Your task to perform on an android device: Open internet settings Image 0: 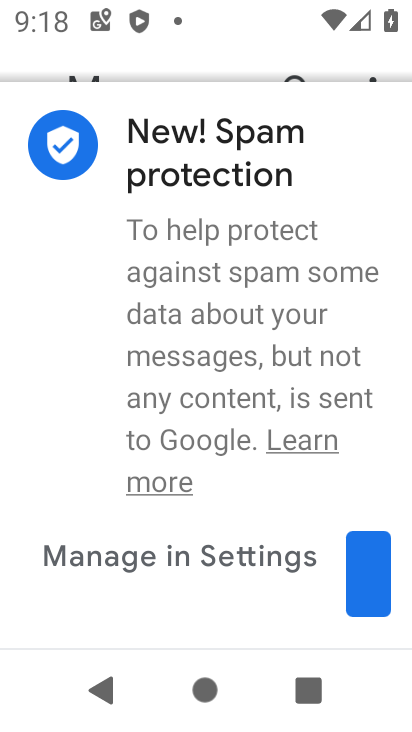
Step 0: press home button
Your task to perform on an android device: Open internet settings Image 1: 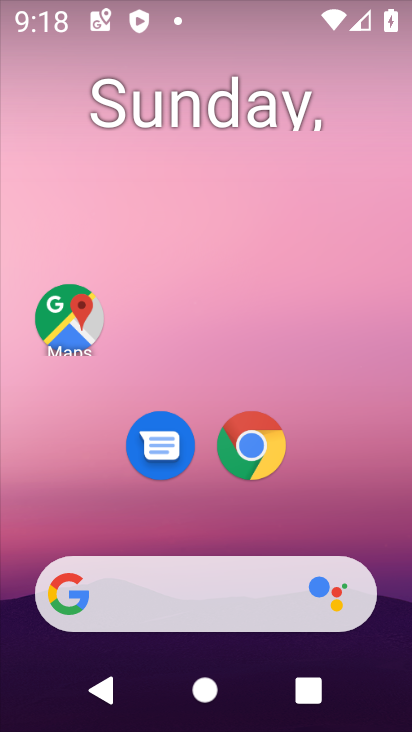
Step 1: drag from (377, 548) to (312, 152)
Your task to perform on an android device: Open internet settings Image 2: 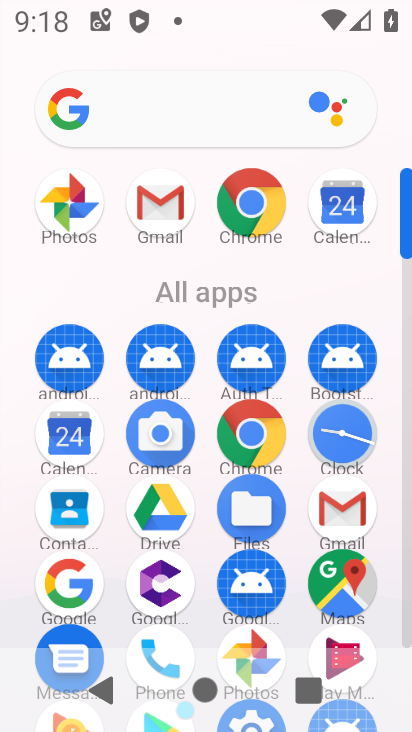
Step 2: click (406, 629)
Your task to perform on an android device: Open internet settings Image 3: 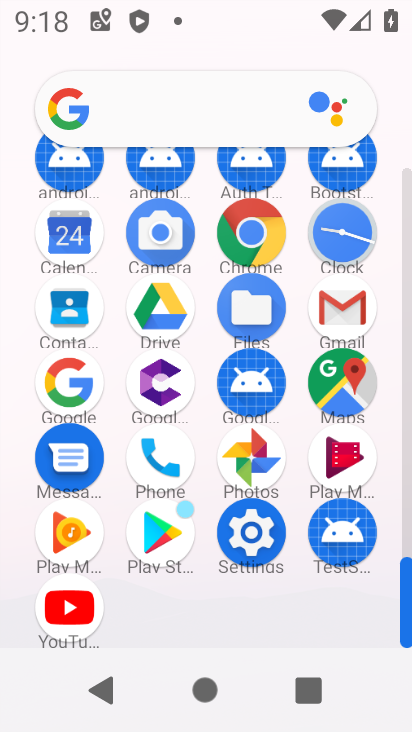
Step 3: click (249, 531)
Your task to perform on an android device: Open internet settings Image 4: 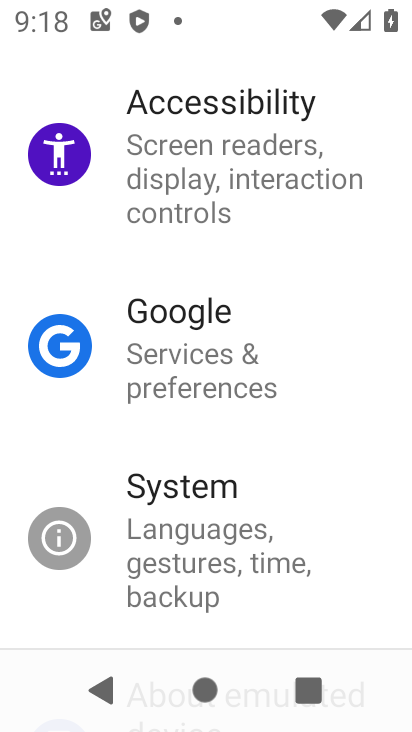
Step 4: drag from (315, 296) to (312, 532)
Your task to perform on an android device: Open internet settings Image 5: 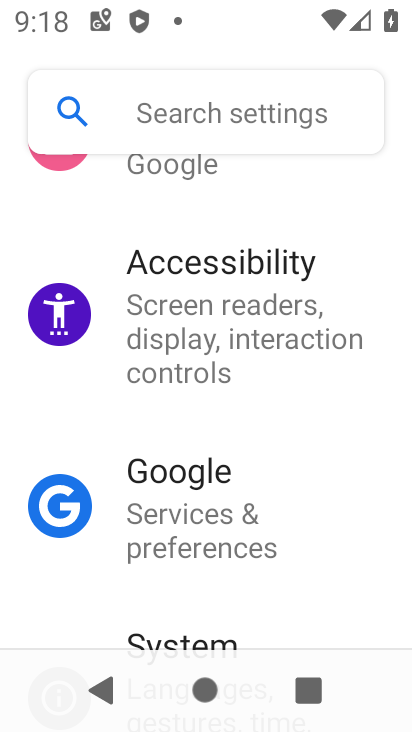
Step 5: drag from (368, 305) to (339, 515)
Your task to perform on an android device: Open internet settings Image 6: 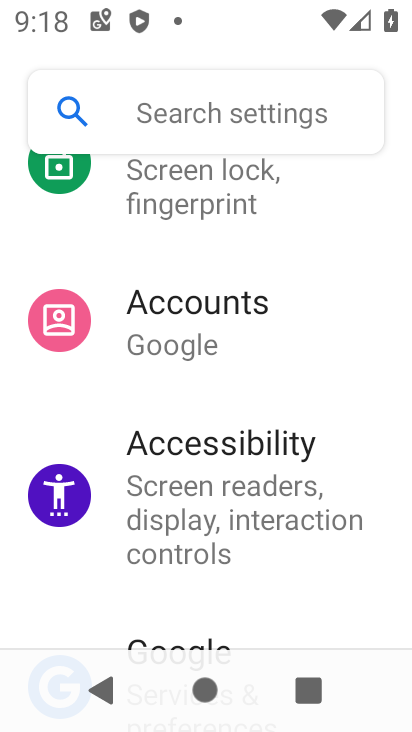
Step 6: drag from (330, 275) to (347, 506)
Your task to perform on an android device: Open internet settings Image 7: 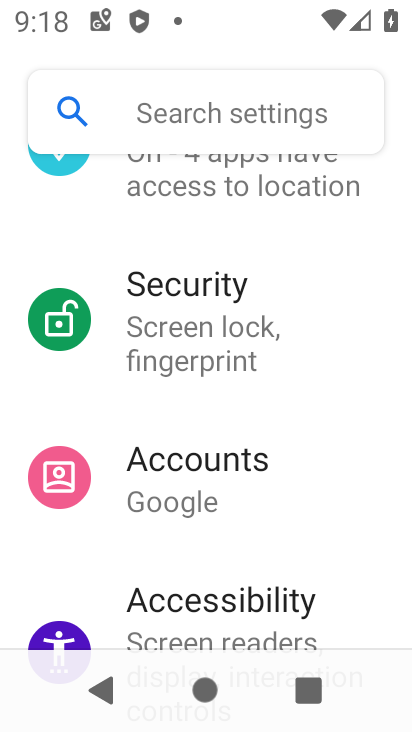
Step 7: drag from (364, 321) to (342, 576)
Your task to perform on an android device: Open internet settings Image 8: 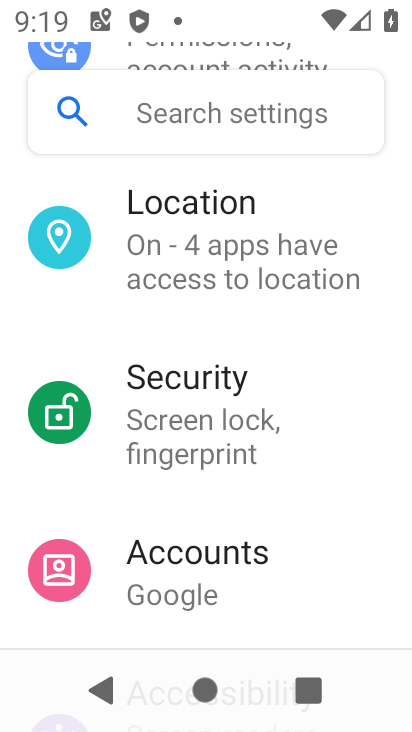
Step 8: drag from (359, 287) to (319, 553)
Your task to perform on an android device: Open internet settings Image 9: 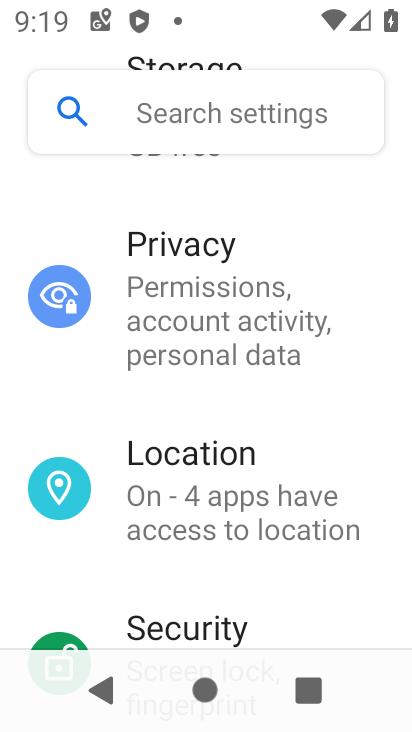
Step 9: drag from (334, 326) to (323, 562)
Your task to perform on an android device: Open internet settings Image 10: 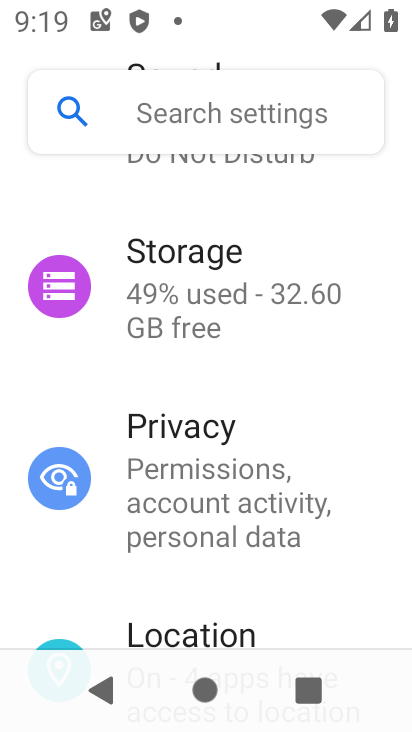
Step 10: drag from (374, 297) to (333, 582)
Your task to perform on an android device: Open internet settings Image 11: 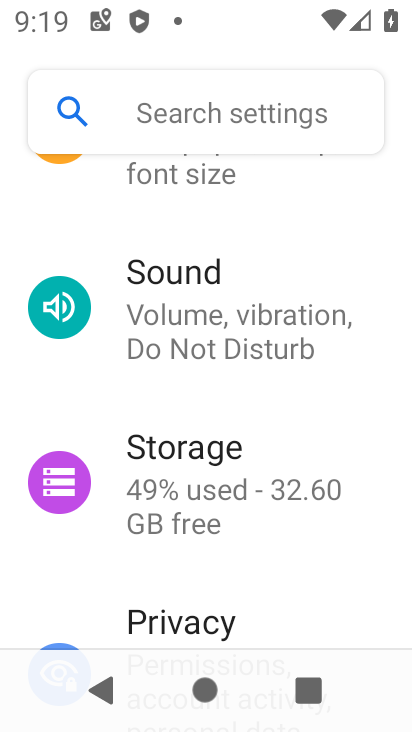
Step 11: drag from (357, 299) to (341, 550)
Your task to perform on an android device: Open internet settings Image 12: 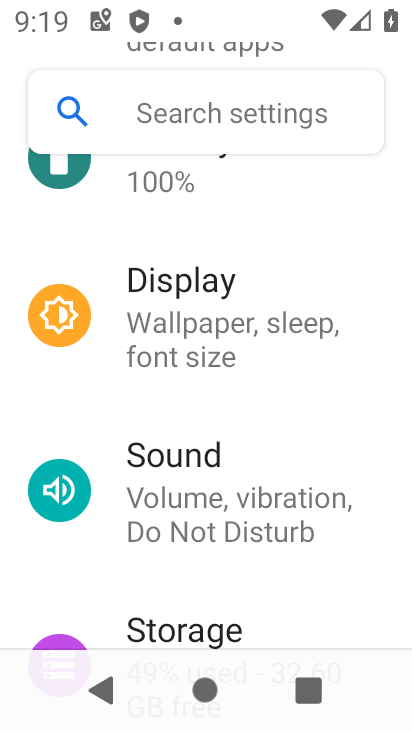
Step 12: drag from (348, 351) to (323, 574)
Your task to perform on an android device: Open internet settings Image 13: 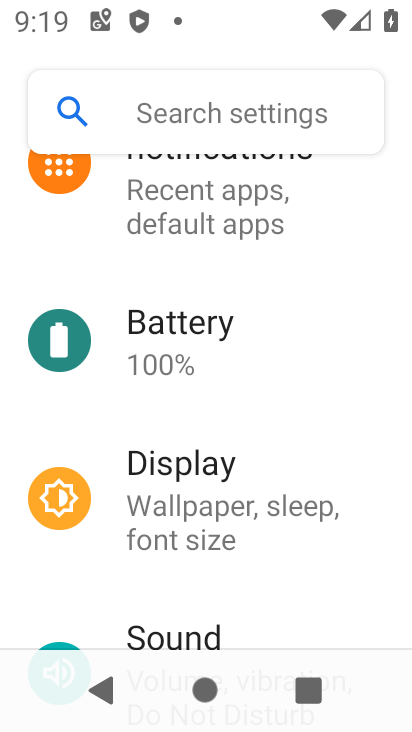
Step 13: drag from (337, 382) to (332, 651)
Your task to perform on an android device: Open internet settings Image 14: 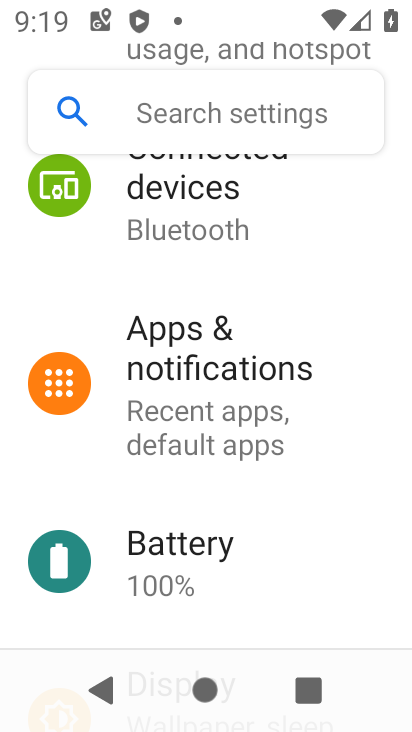
Step 14: drag from (360, 246) to (339, 518)
Your task to perform on an android device: Open internet settings Image 15: 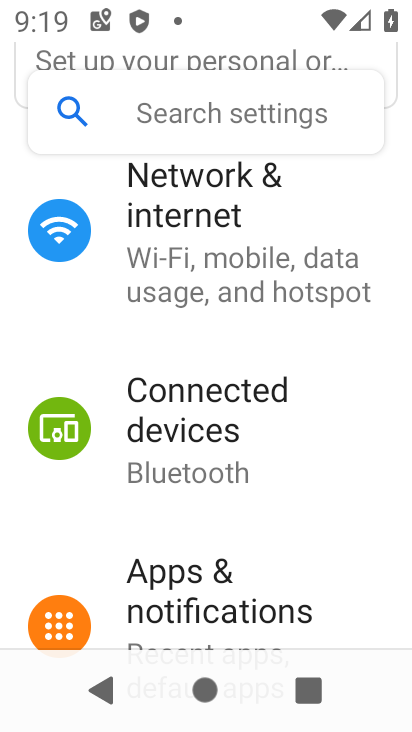
Step 15: click (181, 245)
Your task to perform on an android device: Open internet settings Image 16: 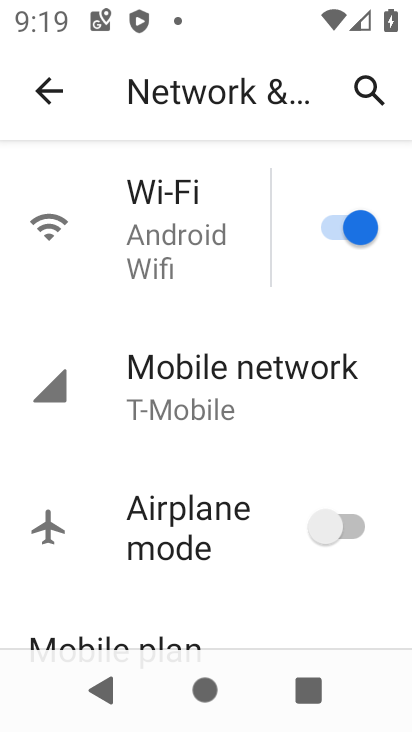
Step 16: click (127, 215)
Your task to perform on an android device: Open internet settings Image 17: 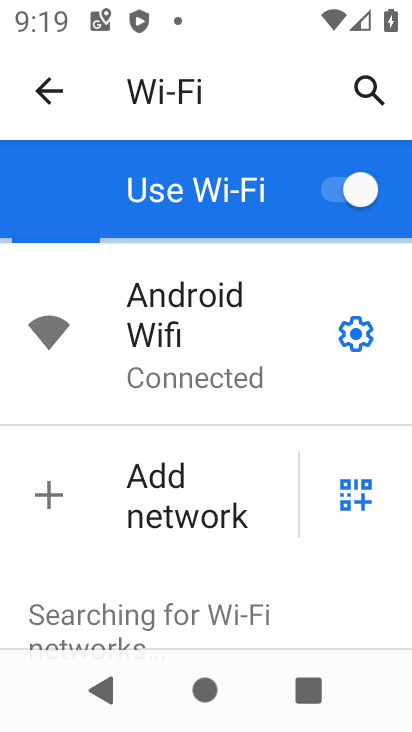
Step 17: task complete